Your task to perform on an android device: Go to calendar. Show me events next week Image 0: 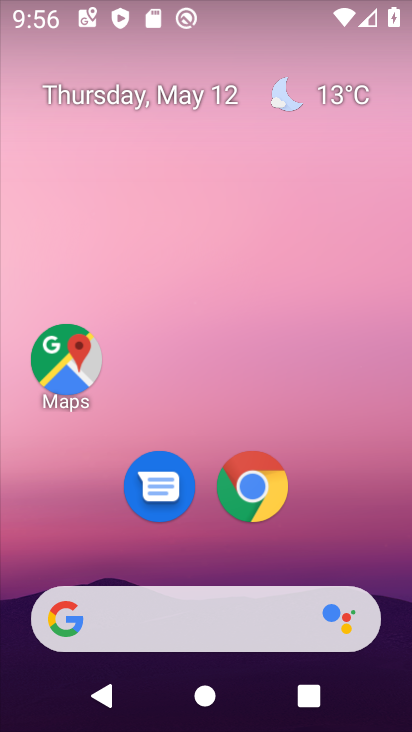
Step 0: drag from (373, 495) to (298, 122)
Your task to perform on an android device: Go to calendar. Show me events next week Image 1: 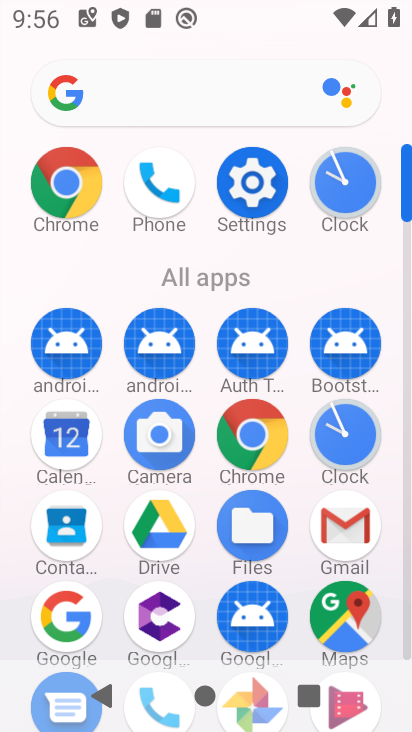
Step 1: click (68, 443)
Your task to perform on an android device: Go to calendar. Show me events next week Image 2: 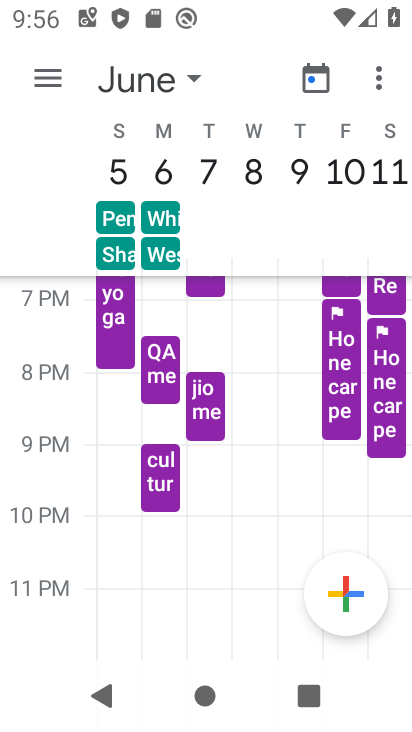
Step 2: click (132, 76)
Your task to perform on an android device: Go to calendar. Show me events next week Image 3: 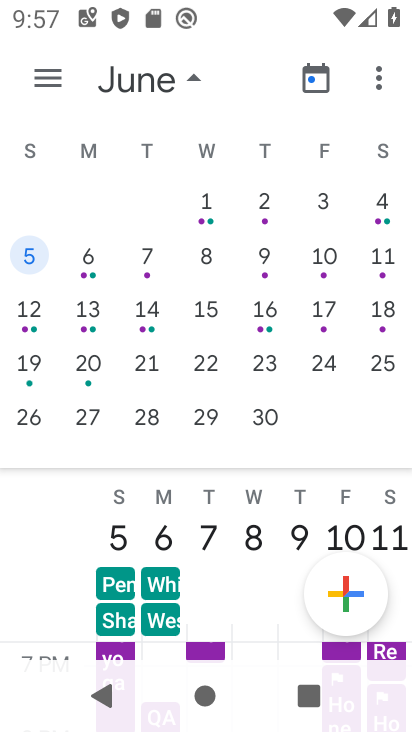
Step 3: drag from (98, 285) to (365, 314)
Your task to perform on an android device: Go to calendar. Show me events next week Image 4: 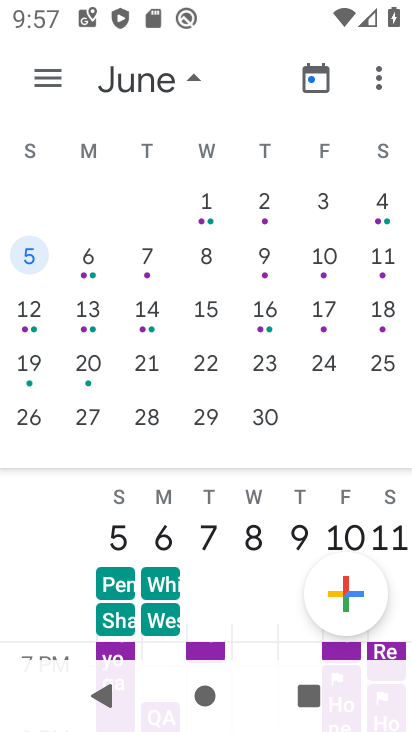
Step 4: click (28, 285)
Your task to perform on an android device: Go to calendar. Show me events next week Image 5: 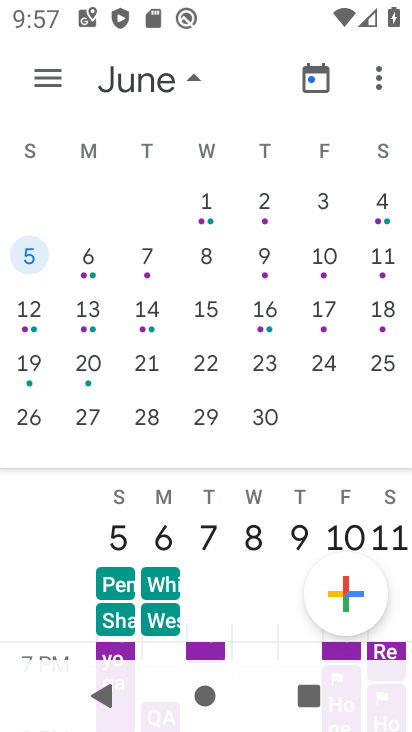
Step 5: drag from (79, 278) to (379, 317)
Your task to perform on an android device: Go to calendar. Show me events next week Image 6: 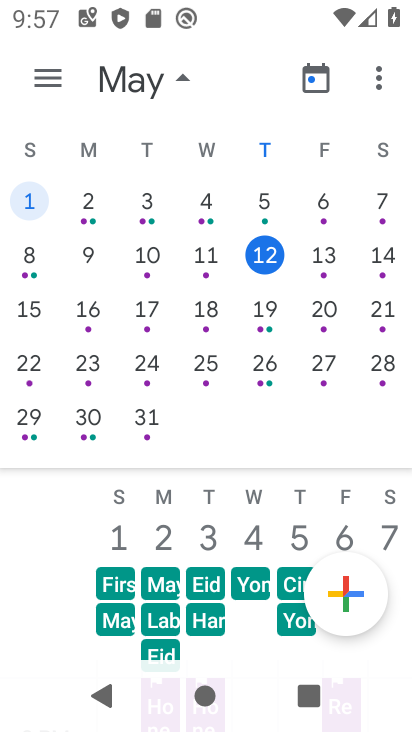
Step 6: click (89, 312)
Your task to perform on an android device: Go to calendar. Show me events next week Image 7: 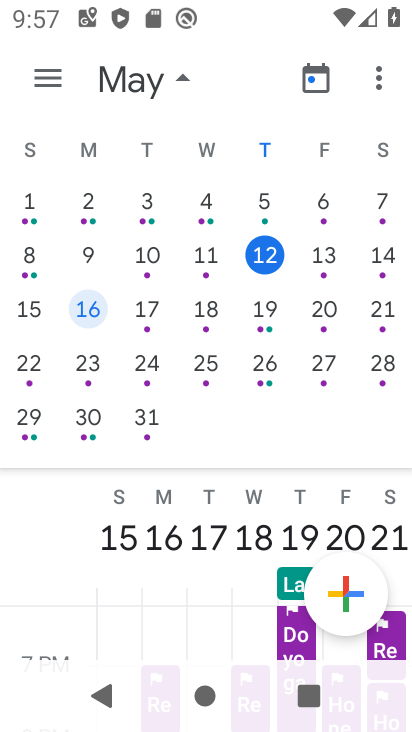
Step 7: task complete